Your task to perform on an android device: see sites visited before in the chrome app Image 0: 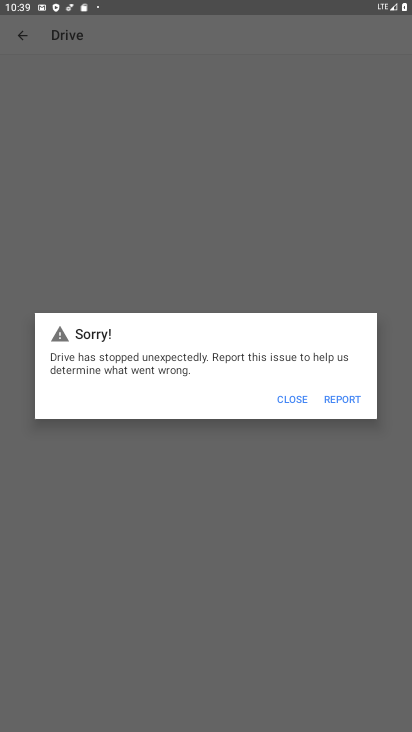
Step 0: press home button
Your task to perform on an android device: see sites visited before in the chrome app Image 1: 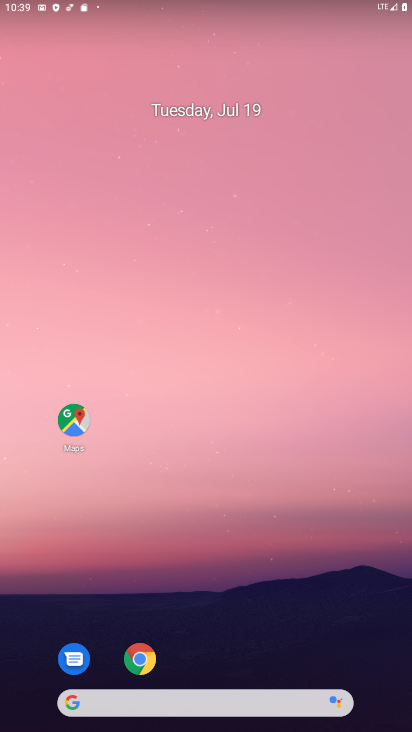
Step 1: click (139, 669)
Your task to perform on an android device: see sites visited before in the chrome app Image 2: 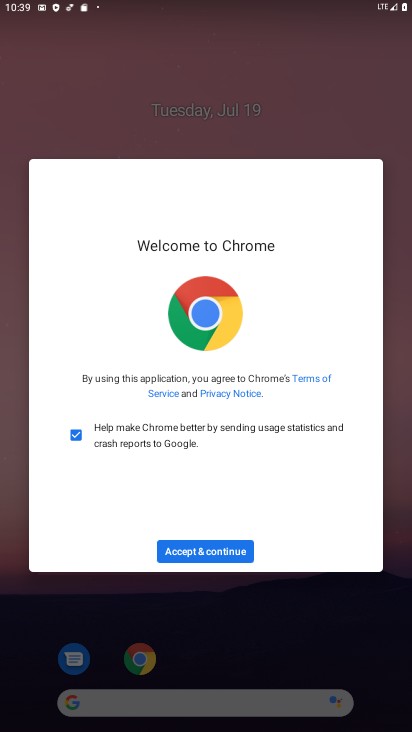
Step 2: click (204, 547)
Your task to perform on an android device: see sites visited before in the chrome app Image 3: 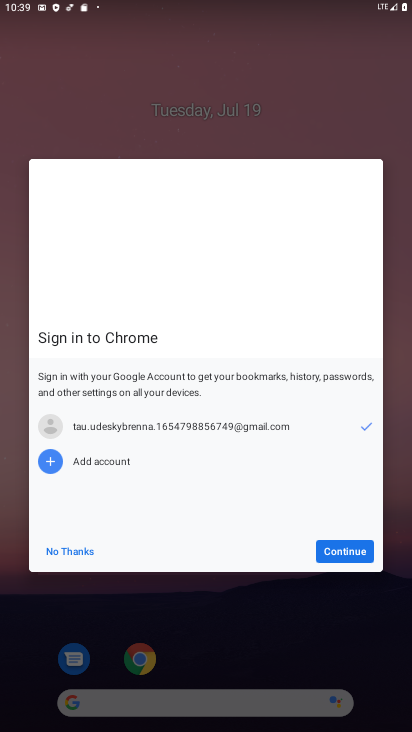
Step 3: click (327, 551)
Your task to perform on an android device: see sites visited before in the chrome app Image 4: 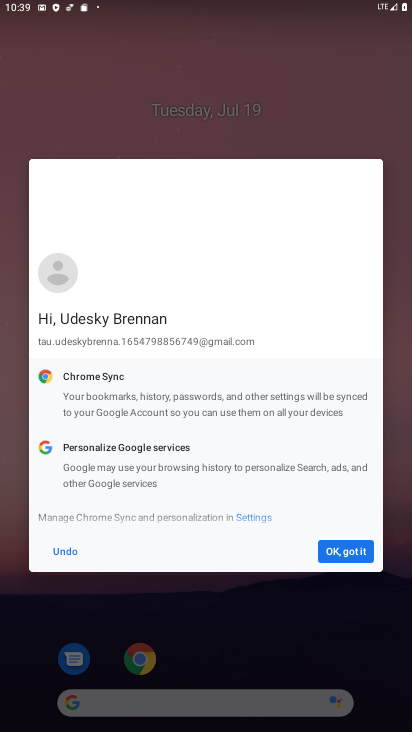
Step 4: click (327, 551)
Your task to perform on an android device: see sites visited before in the chrome app Image 5: 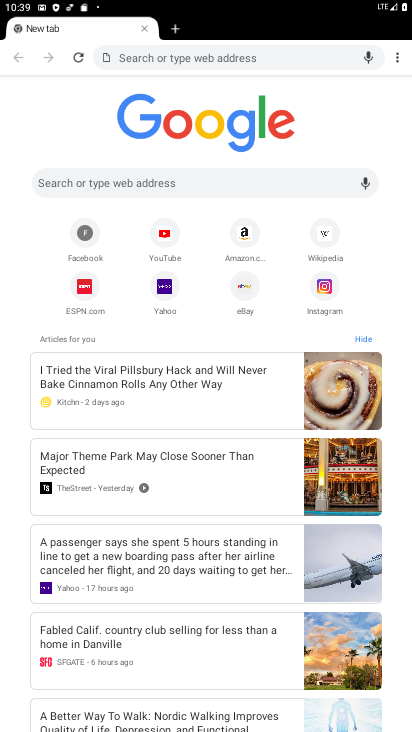
Step 5: click (396, 54)
Your task to perform on an android device: see sites visited before in the chrome app Image 6: 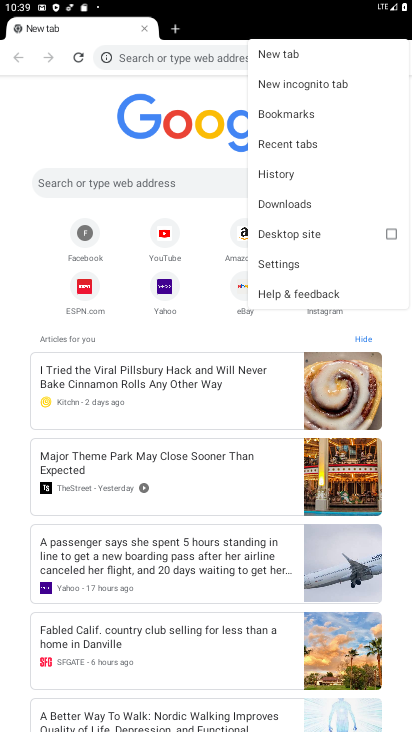
Step 6: click (280, 179)
Your task to perform on an android device: see sites visited before in the chrome app Image 7: 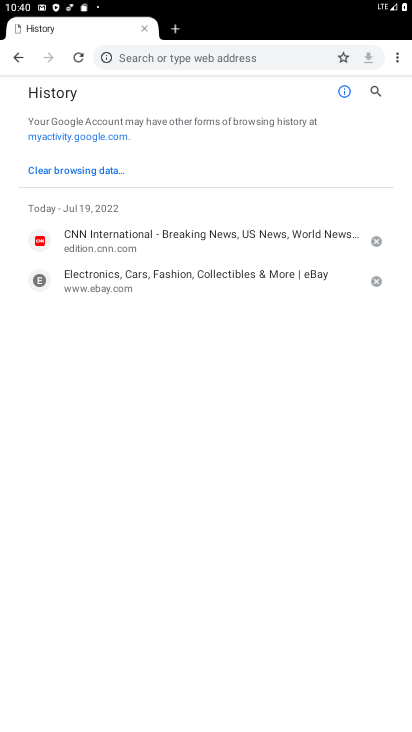
Step 7: task complete